Your task to perform on an android device: Show me productivity apps on the Play Store Image 0: 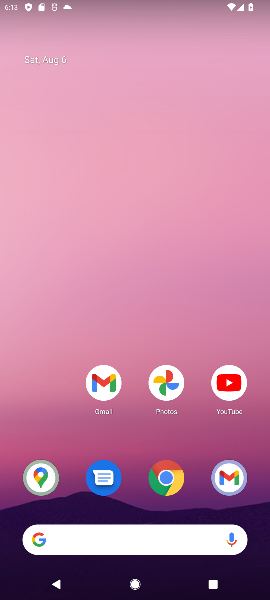
Step 0: press home button
Your task to perform on an android device: Show me productivity apps on the Play Store Image 1: 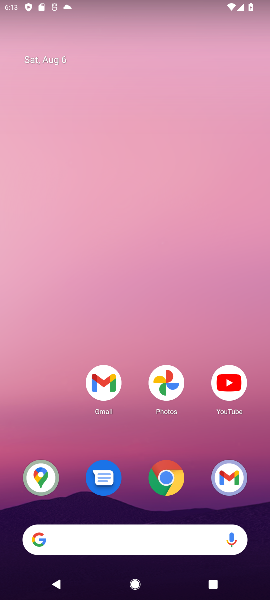
Step 1: drag from (156, 513) to (122, 173)
Your task to perform on an android device: Show me productivity apps on the Play Store Image 2: 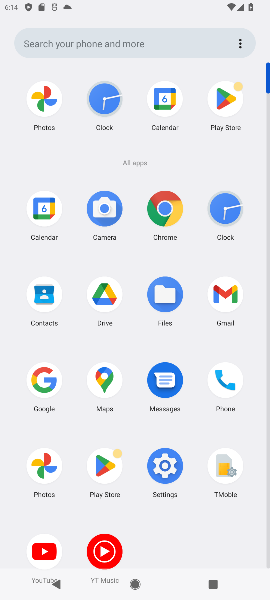
Step 2: click (97, 469)
Your task to perform on an android device: Show me productivity apps on the Play Store Image 3: 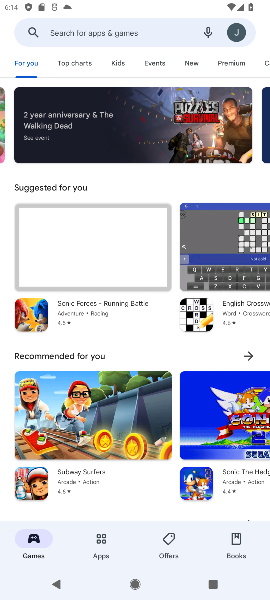
Step 3: click (99, 547)
Your task to perform on an android device: Show me productivity apps on the Play Store Image 4: 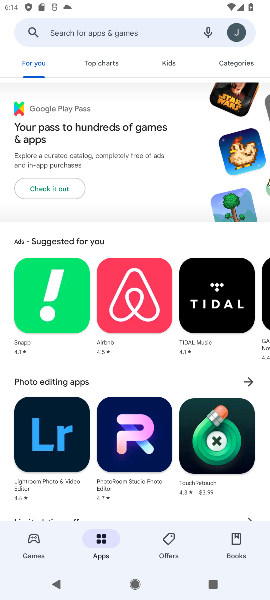
Step 4: click (240, 67)
Your task to perform on an android device: Show me productivity apps on the Play Store Image 5: 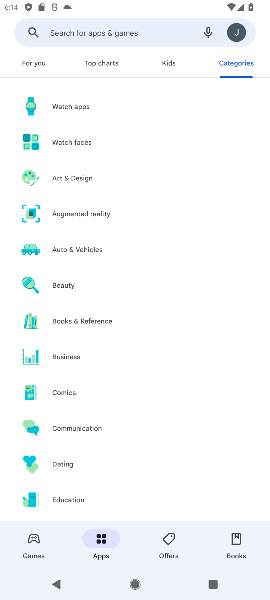
Step 5: drag from (163, 460) to (114, 105)
Your task to perform on an android device: Show me productivity apps on the Play Store Image 6: 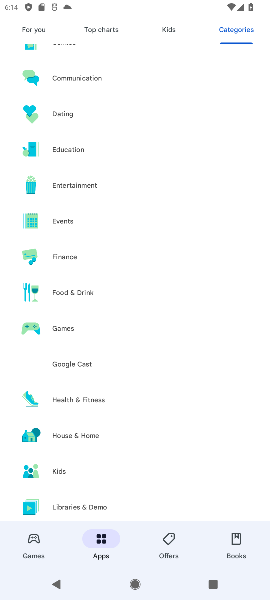
Step 6: drag from (166, 455) to (108, 143)
Your task to perform on an android device: Show me productivity apps on the Play Store Image 7: 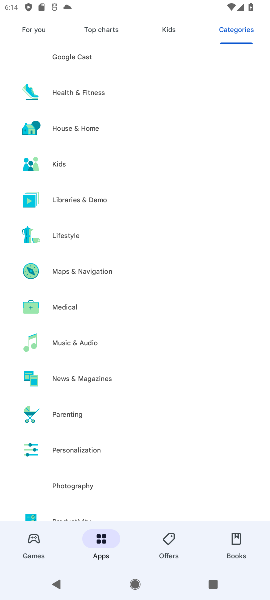
Step 7: drag from (200, 448) to (183, 288)
Your task to perform on an android device: Show me productivity apps on the Play Store Image 8: 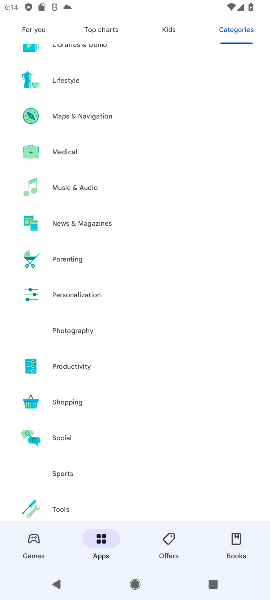
Step 8: click (73, 373)
Your task to perform on an android device: Show me productivity apps on the Play Store Image 9: 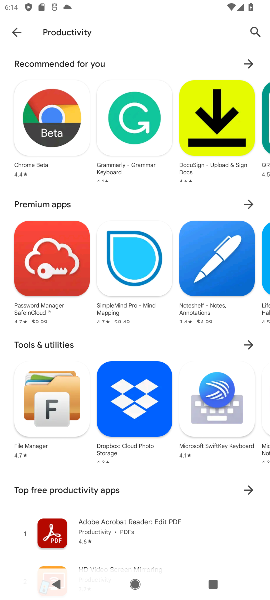
Step 9: task complete